Your task to perform on an android device: Open the calendar app, open the side menu, and click the "Day" option Image 0: 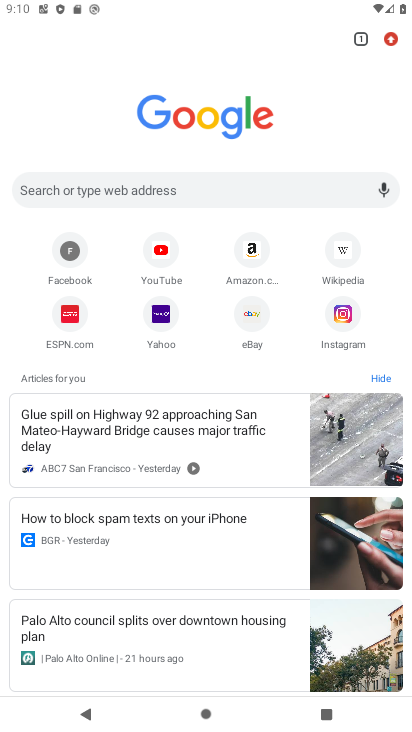
Step 0: press back button
Your task to perform on an android device: Open the calendar app, open the side menu, and click the "Day" option Image 1: 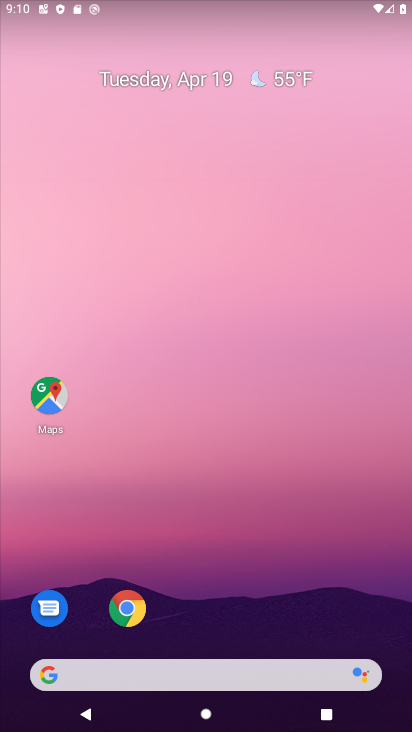
Step 1: drag from (252, 554) to (359, 102)
Your task to perform on an android device: Open the calendar app, open the side menu, and click the "Day" option Image 2: 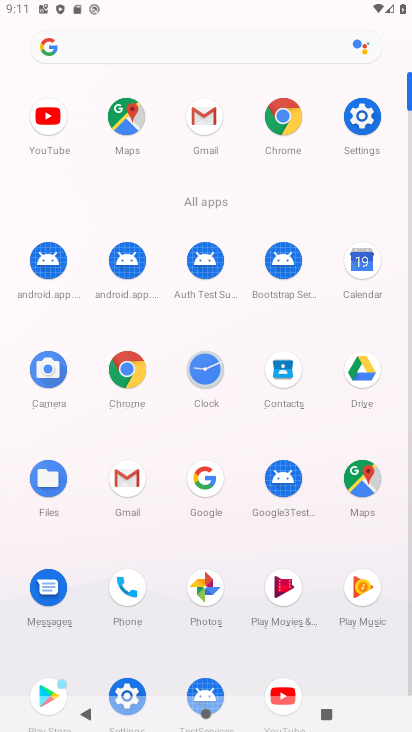
Step 2: click (375, 265)
Your task to perform on an android device: Open the calendar app, open the side menu, and click the "Day" option Image 3: 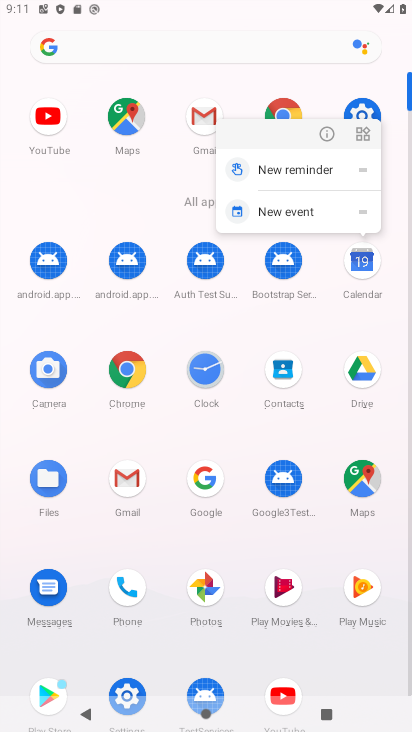
Step 3: click (367, 270)
Your task to perform on an android device: Open the calendar app, open the side menu, and click the "Day" option Image 4: 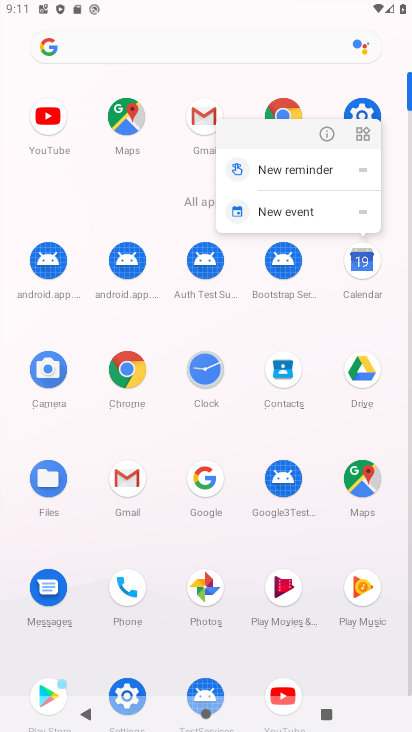
Step 4: click (366, 271)
Your task to perform on an android device: Open the calendar app, open the side menu, and click the "Day" option Image 5: 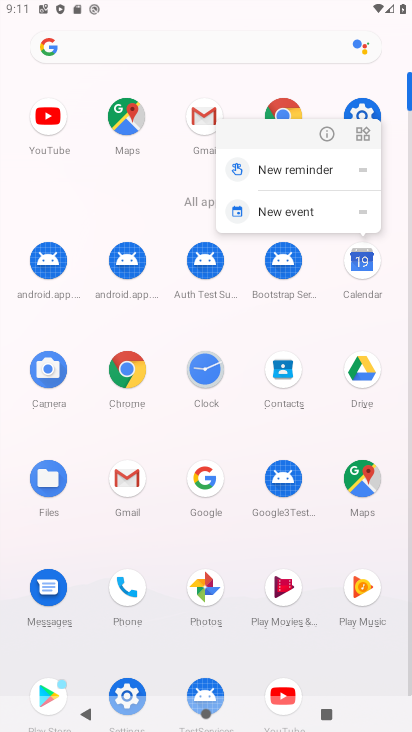
Step 5: click (359, 277)
Your task to perform on an android device: Open the calendar app, open the side menu, and click the "Day" option Image 6: 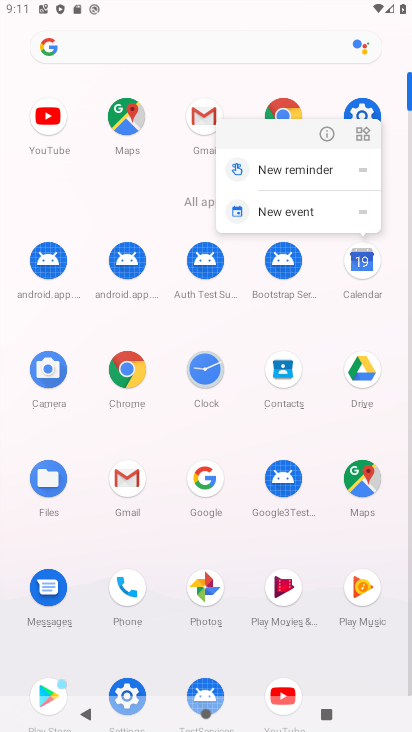
Step 6: click (362, 274)
Your task to perform on an android device: Open the calendar app, open the side menu, and click the "Day" option Image 7: 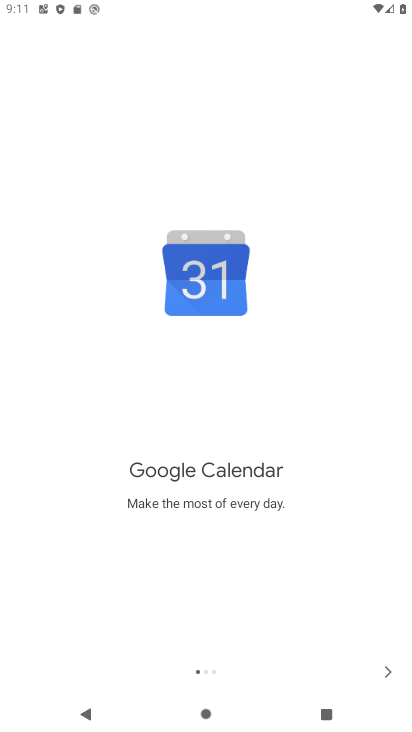
Step 7: click (384, 675)
Your task to perform on an android device: Open the calendar app, open the side menu, and click the "Day" option Image 8: 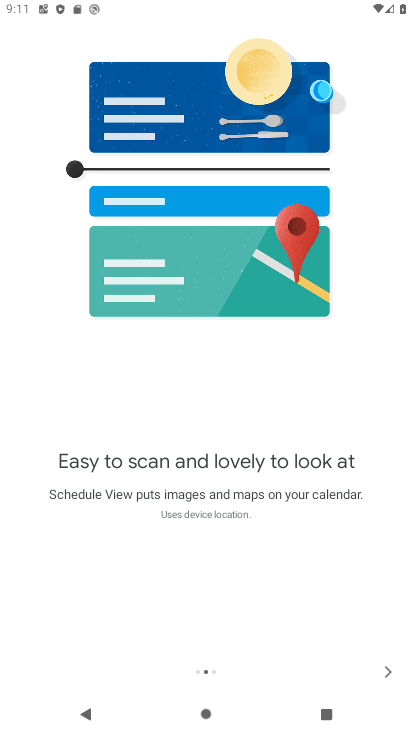
Step 8: click (381, 680)
Your task to perform on an android device: Open the calendar app, open the side menu, and click the "Day" option Image 9: 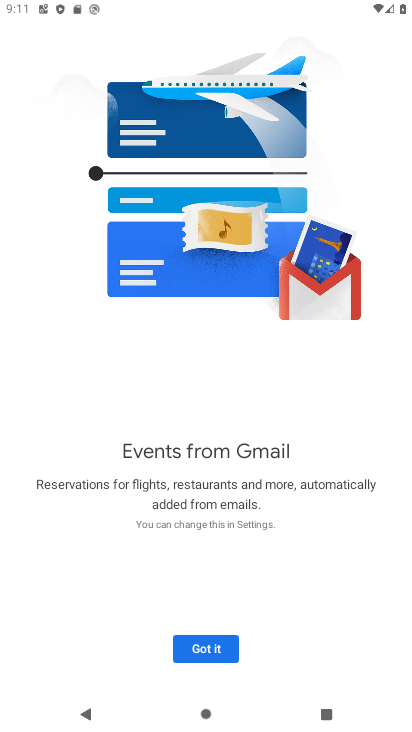
Step 9: click (212, 649)
Your task to perform on an android device: Open the calendar app, open the side menu, and click the "Day" option Image 10: 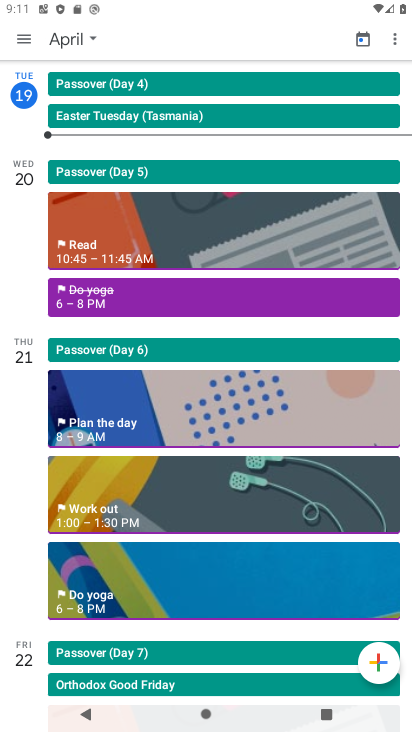
Step 10: click (26, 44)
Your task to perform on an android device: Open the calendar app, open the side menu, and click the "Day" option Image 11: 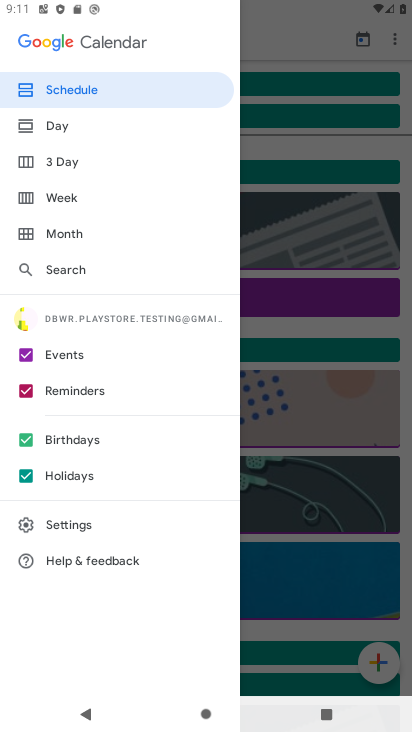
Step 11: click (119, 128)
Your task to perform on an android device: Open the calendar app, open the side menu, and click the "Day" option Image 12: 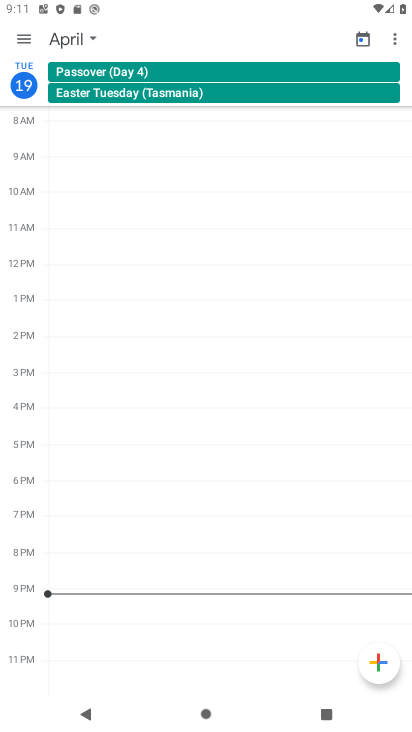
Step 12: task complete